Your task to perform on an android device: open device folders in google photos Image 0: 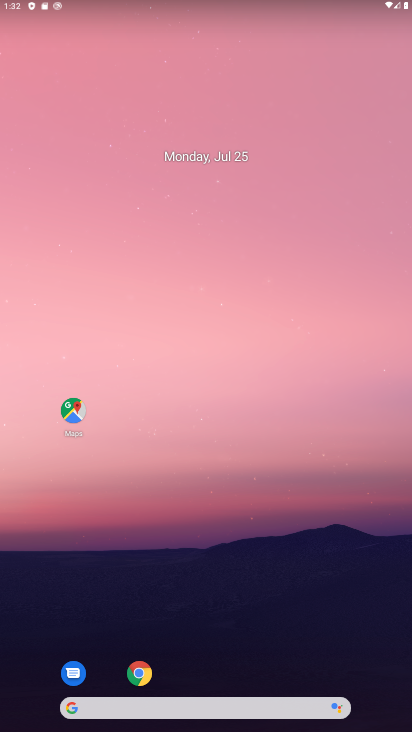
Step 0: drag from (198, 663) to (190, 42)
Your task to perform on an android device: open device folders in google photos Image 1: 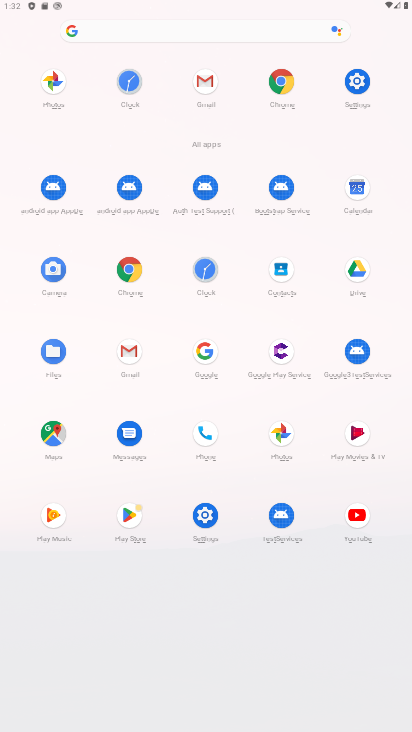
Step 1: click (281, 433)
Your task to perform on an android device: open device folders in google photos Image 2: 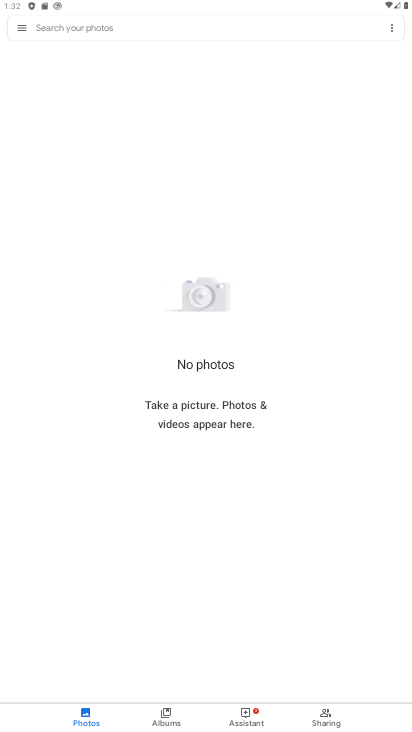
Step 2: click (27, 33)
Your task to perform on an android device: open device folders in google photos Image 3: 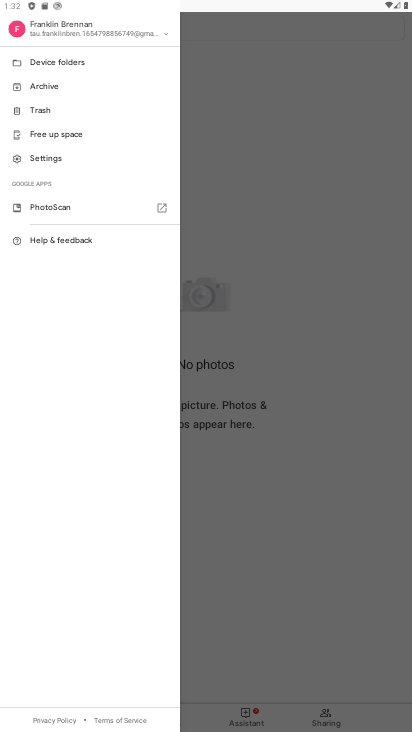
Step 3: click (68, 72)
Your task to perform on an android device: open device folders in google photos Image 4: 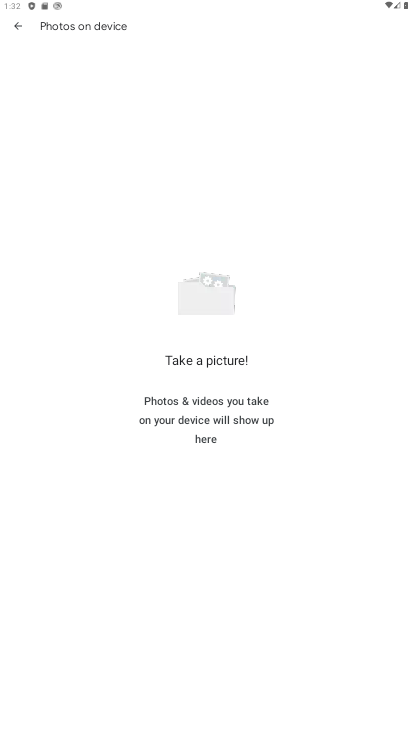
Step 4: task complete